Your task to perform on an android device: turn on location history Image 0: 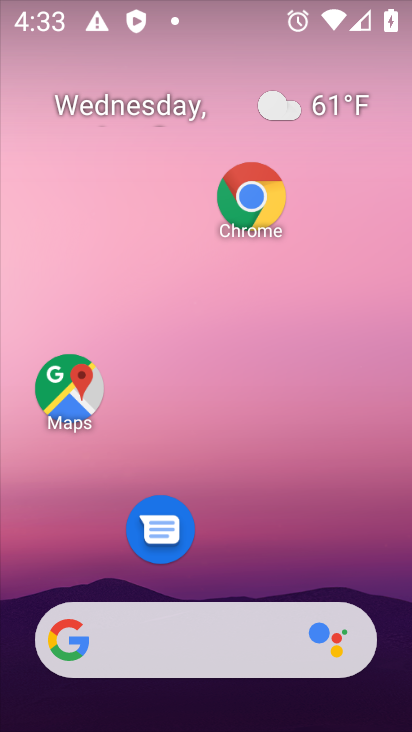
Step 0: drag from (245, 555) to (207, 13)
Your task to perform on an android device: turn on location history Image 1: 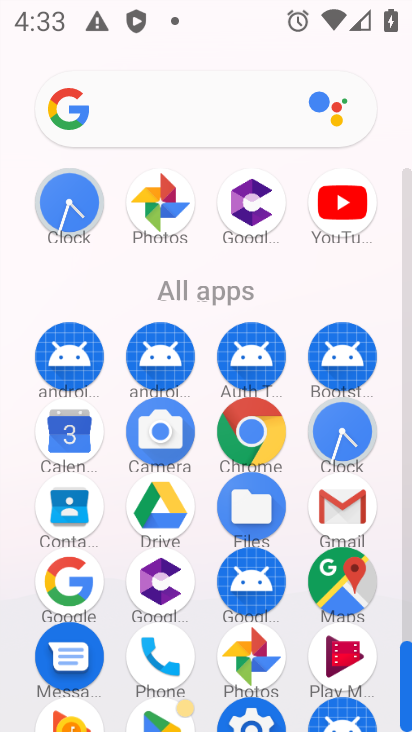
Step 1: drag from (243, 609) to (268, 181)
Your task to perform on an android device: turn on location history Image 2: 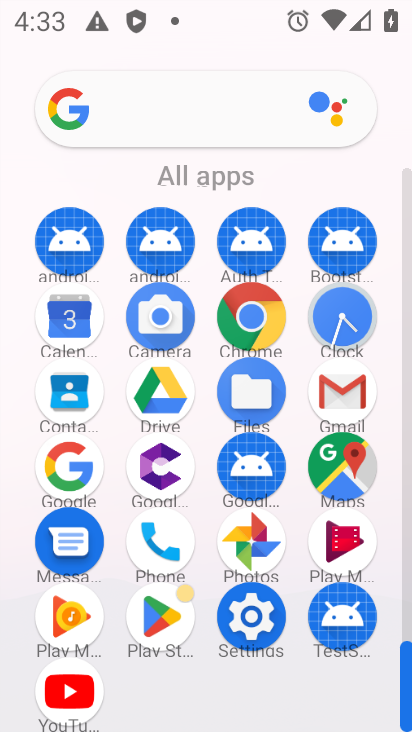
Step 2: click (256, 619)
Your task to perform on an android device: turn on location history Image 3: 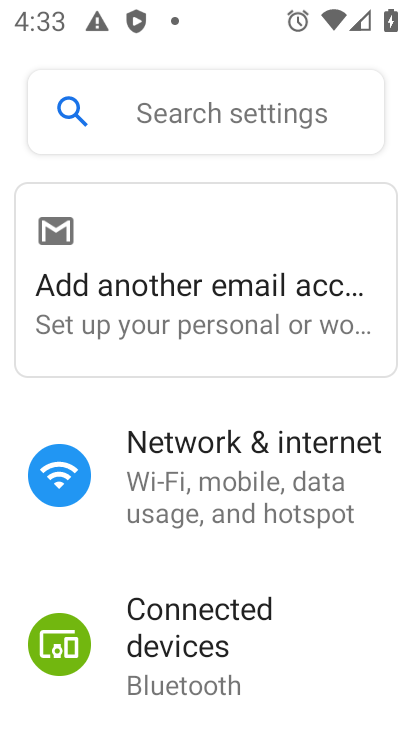
Step 3: drag from (182, 602) to (237, 42)
Your task to perform on an android device: turn on location history Image 4: 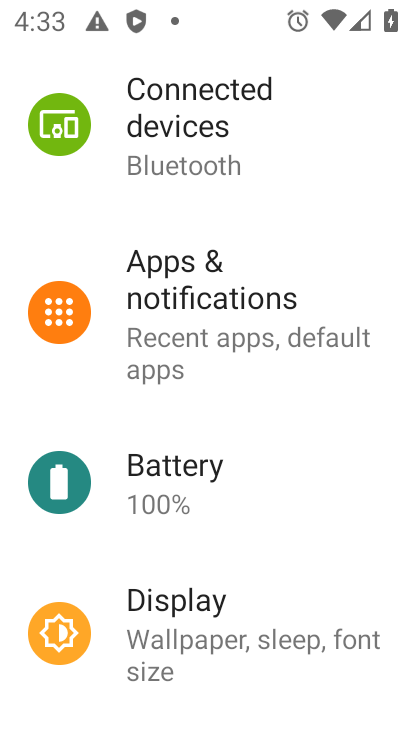
Step 4: drag from (233, 646) to (260, 151)
Your task to perform on an android device: turn on location history Image 5: 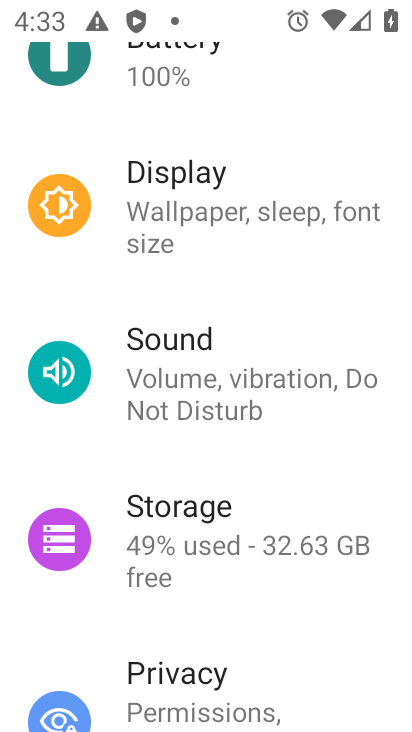
Step 5: drag from (241, 636) to (271, 129)
Your task to perform on an android device: turn on location history Image 6: 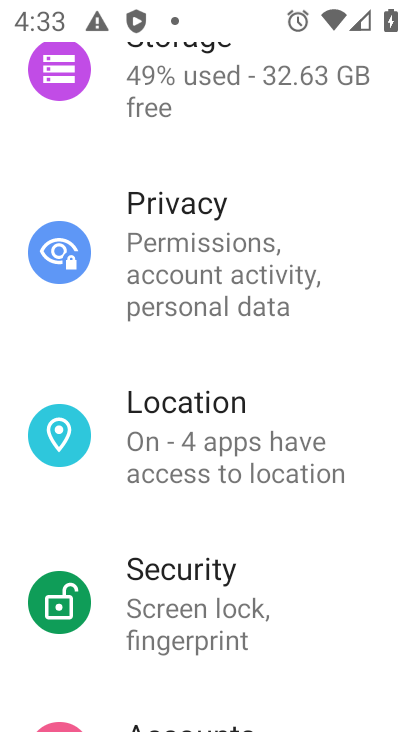
Step 6: click (201, 435)
Your task to perform on an android device: turn on location history Image 7: 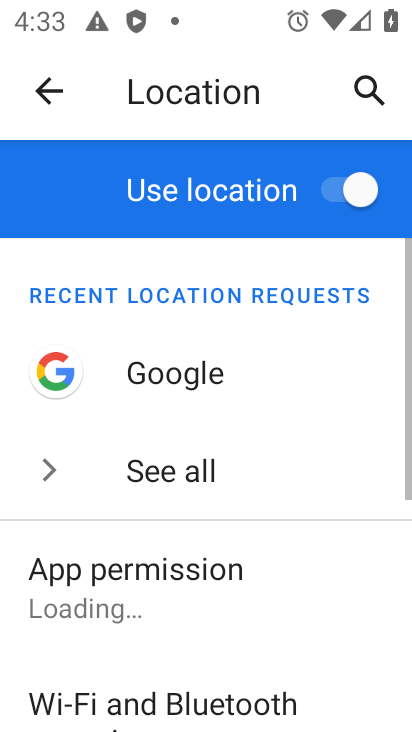
Step 7: drag from (153, 657) to (183, 300)
Your task to perform on an android device: turn on location history Image 8: 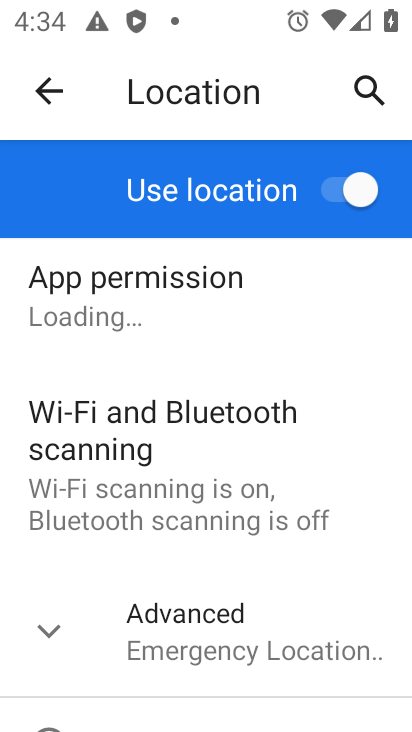
Step 8: drag from (116, 603) to (129, 287)
Your task to perform on an android device: turn on location history Image 9: 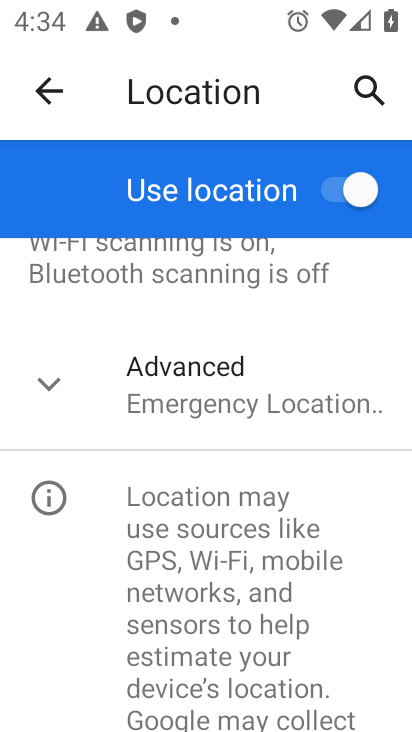
Step 9: click (50, 391)
Your task to perform on an android device: turn on location history Image 10: 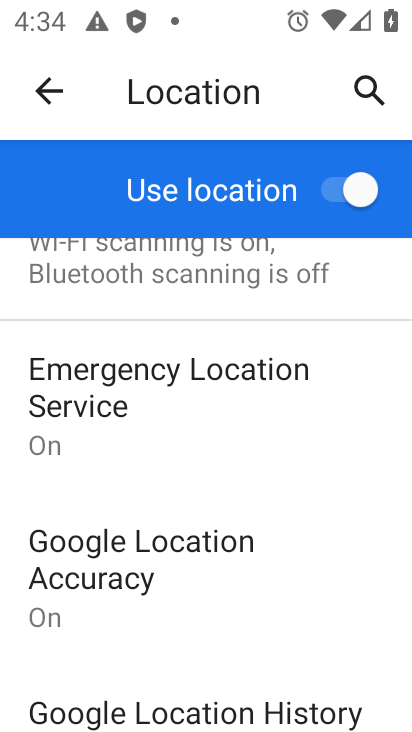
Step 10: drag from (176, 627) to (175, 377)
Your task to perform on an android device: turn on location history Image 11: 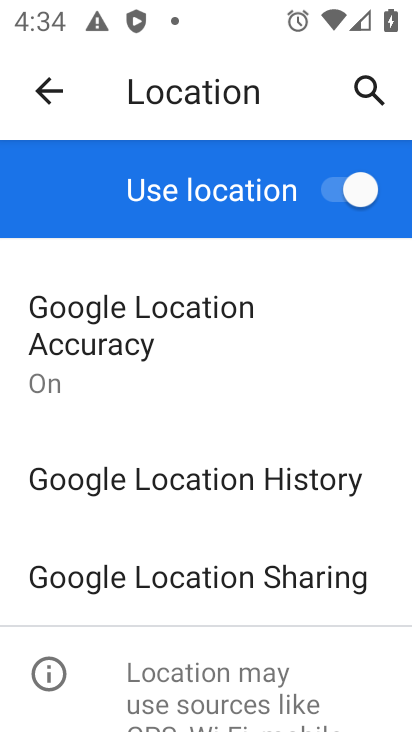
Step 11: drag from (204, 600) to (195, 451)
Your task to perform on an android device: turn on location history Image 12: 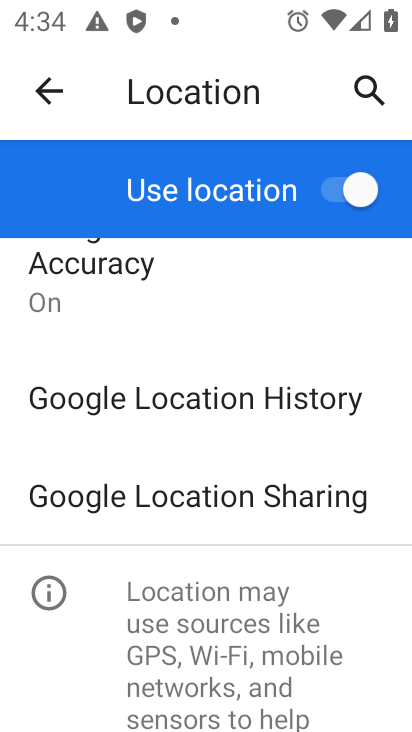
Step 12: click (164, 394)
Your task to perform on an android device: turn on location history Image 13: 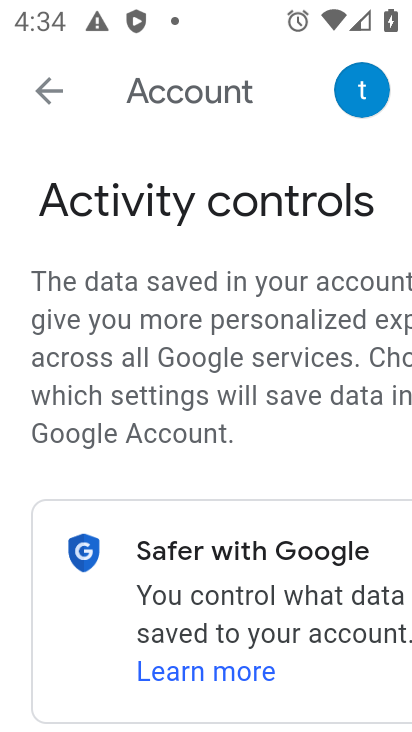
Step 13: drag from (191, 539) to (187, 278)
Your task to perform on an android device: turn on location history Image 14: 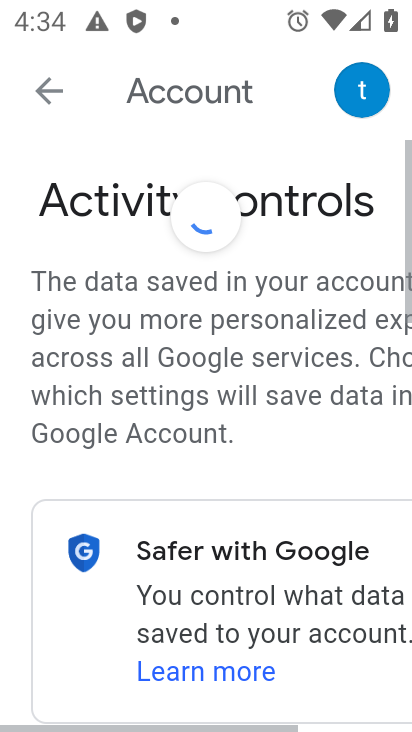
Step 14: drag from (261, 527) to (272, 199)
Your task to perform on an android device: turn on location history Image 15: 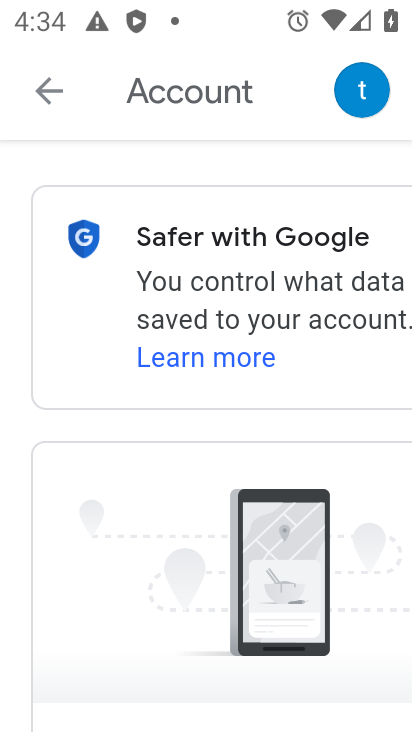
Step 15: drag from (214, 646) to (215, 454)
Your task to perform on an android device: turn on location history Image 16: 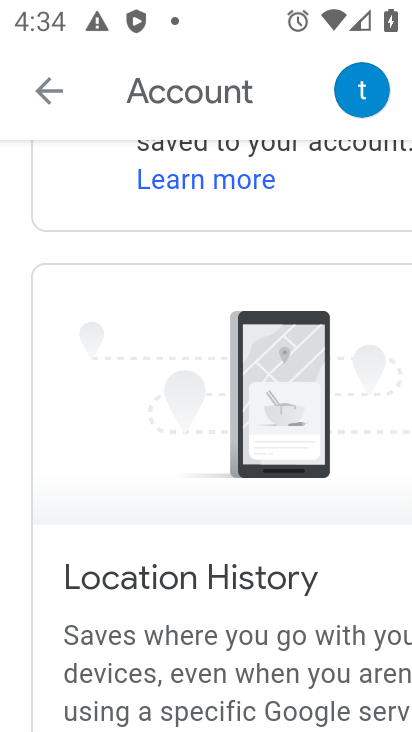
Step 16: drag from (253, 629) to (233, 176)
Your task to perform on an android device: turn on location history Image 17: 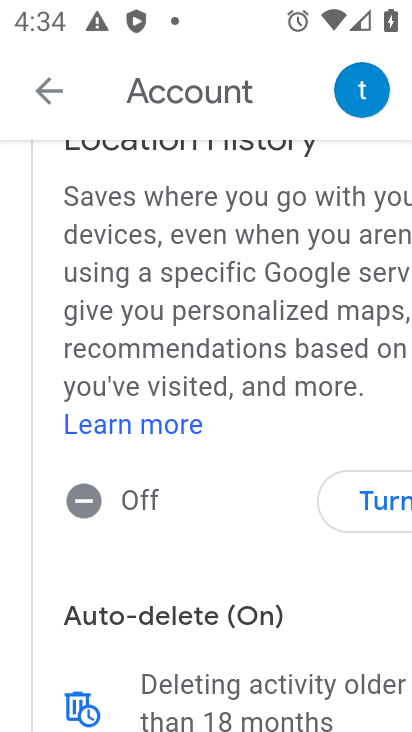
Step 17: click (352, 524)
Your task to perform on an android device: turn on location history Image 18: 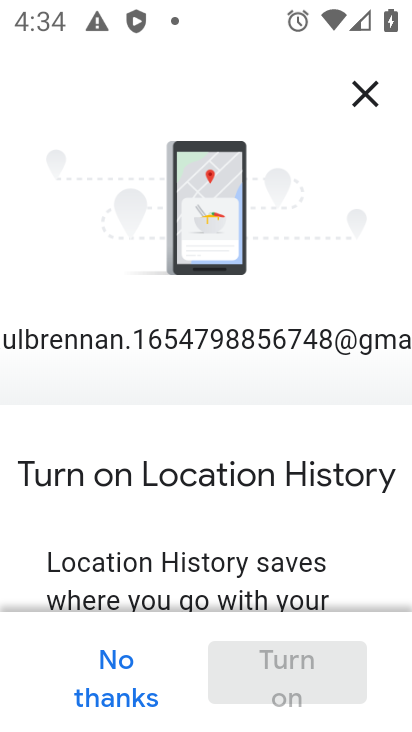
Step 18: drag from (151, 571) to (257, 19)
Your task to perform on an android device: turn on location history Image 19: 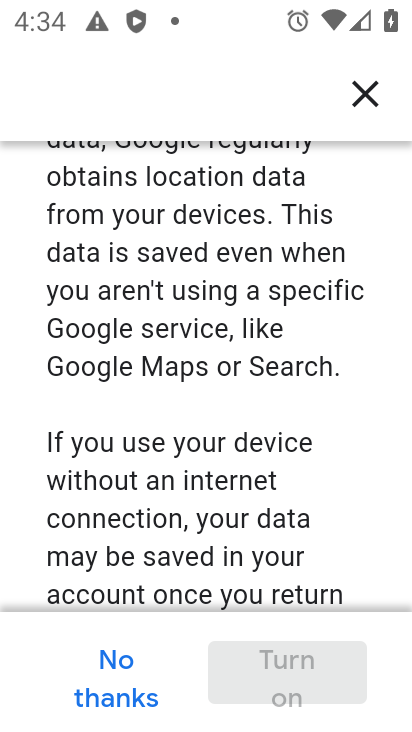
Step 19: drag from (244, 561) to (353, 34)
Your task to perform on an android device: turn on location history Image 20: 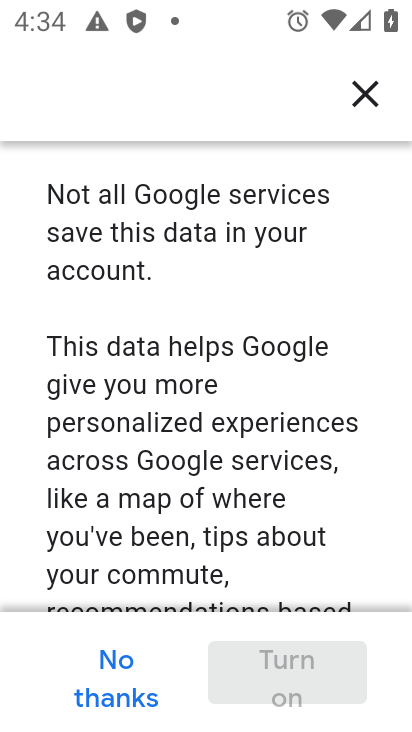
Step 20: drag from (250, 516) to (213, 54)
Your task to perform on an android device: turn on location history Image 21: 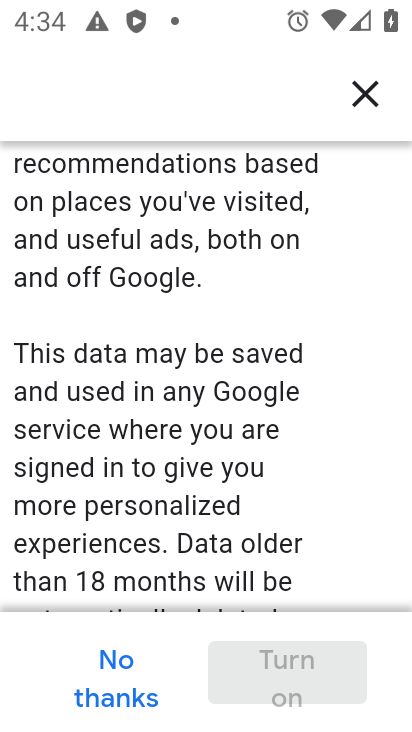
Step 21: drag from (221, 576) to (216, 2)
Your task to perform on an android device: turn on location history Image 22: 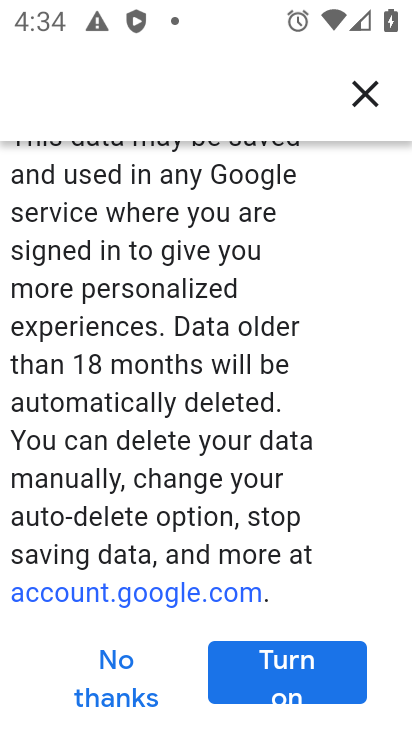
Step 22: click (276, 675)
Your task to perform on an android device: turn on location history Image 23: 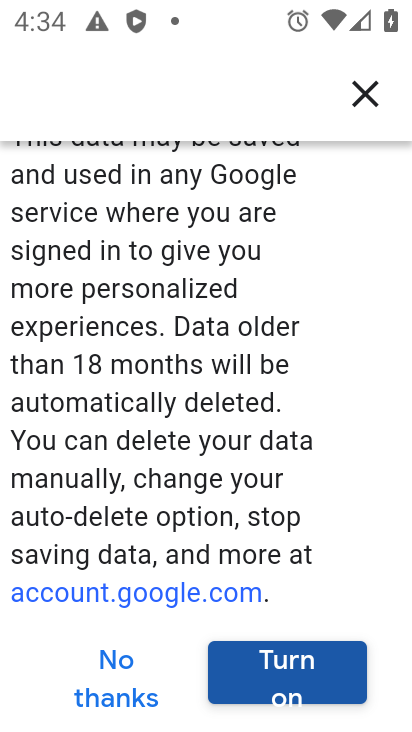
Step 23: click (294, 684)
Your task to perform on an android device: turn on location history Image 24: 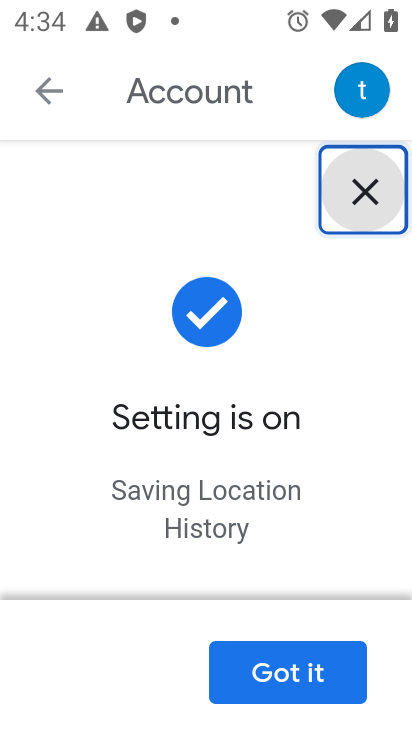
Step 24: click (281, 673)
Your task to perform on an android device: turn on location history Image 25: 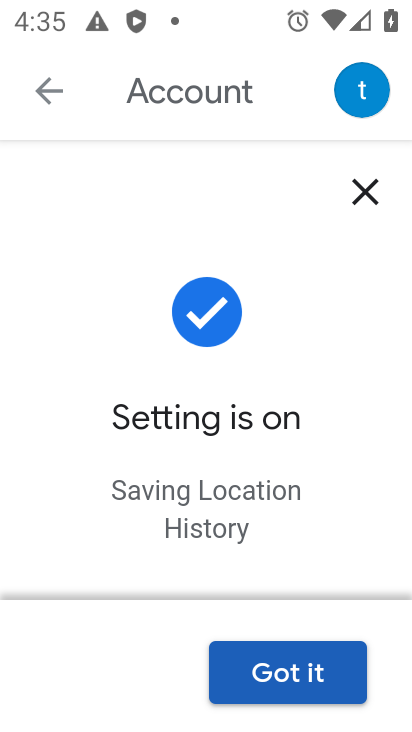
Step 25: click (313, 685)
Your task to perform on an android device: turn on location history Image 26: 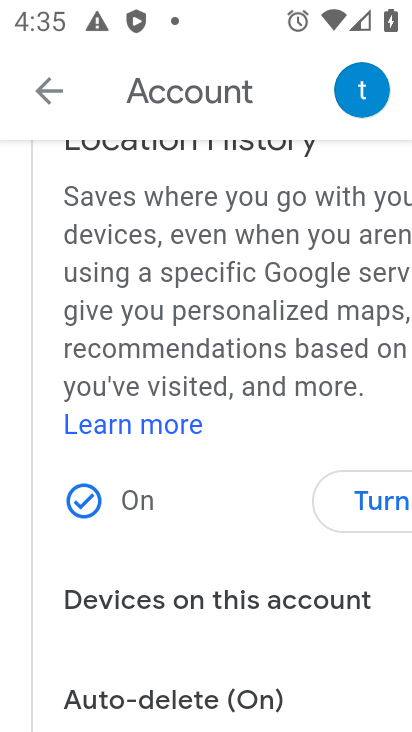
Step 26: task complete